Your task to perform on an android device: turn on the 12-hour format for clock Image 0: 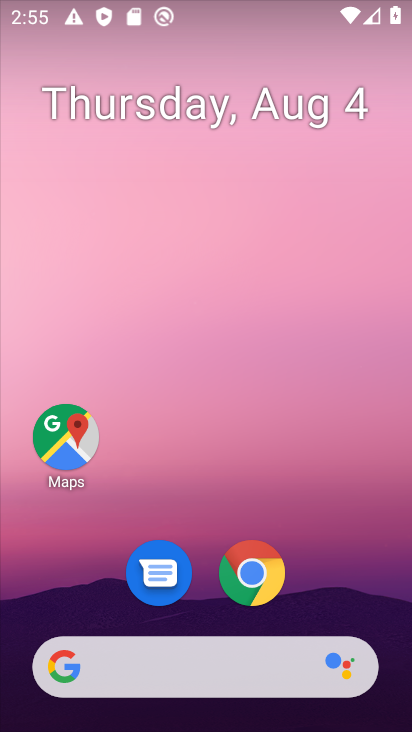
Step 0: drag from (200, 589) to (231, 135)
Your task to perform on an android device: turn on the 12-hour format for clock Image 1: 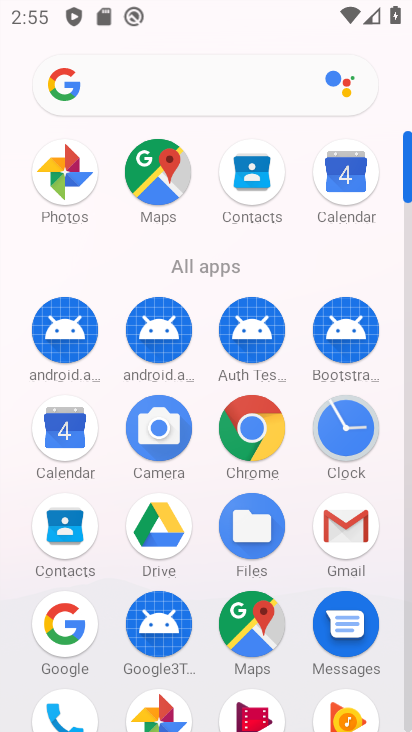
Step 1: click (360, 408)
Your task to perform on an android device: turn on the 12-hour format for clock Image 2: 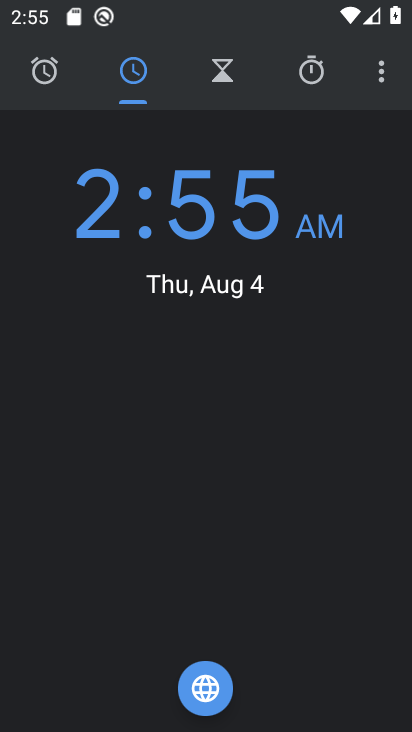
Step 2: click (377, 74)
Your task to perform on an android device: turn on the 12-hour format for clock Image 3: 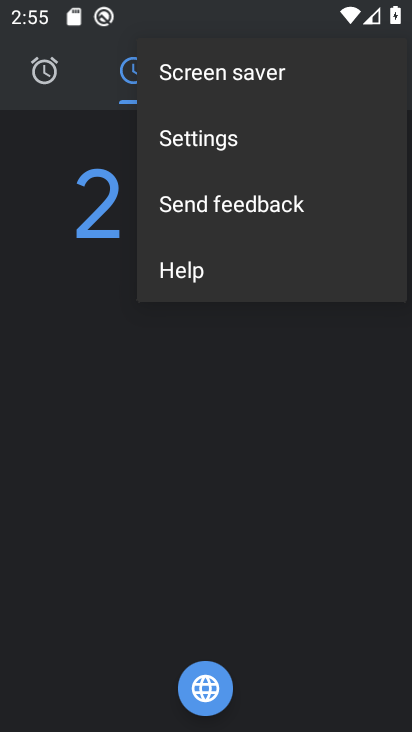
Step 3: click (217, 135)
Your task to perform on an android device: turn on the 12-hour format for clock Image 4: 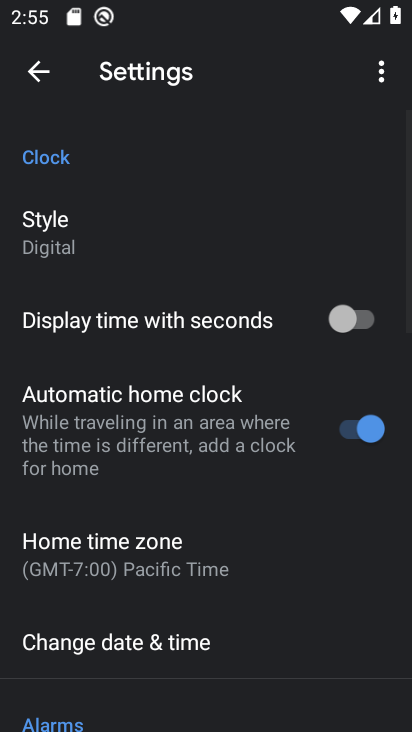
Step 4: drag from (90, 594) to (168, 318)
Your task to perform on an android device: turn on the 12-hour format for clock Image 5: 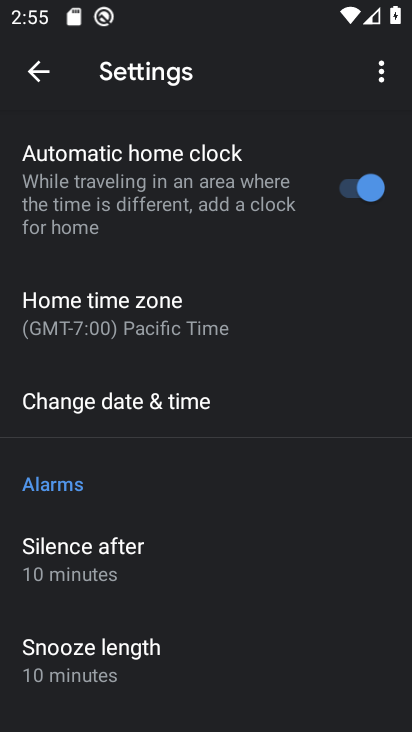
Step 5: click (162, 410)
Your task to perform on an android device: turn on the 12-hour format for clock Image 6: 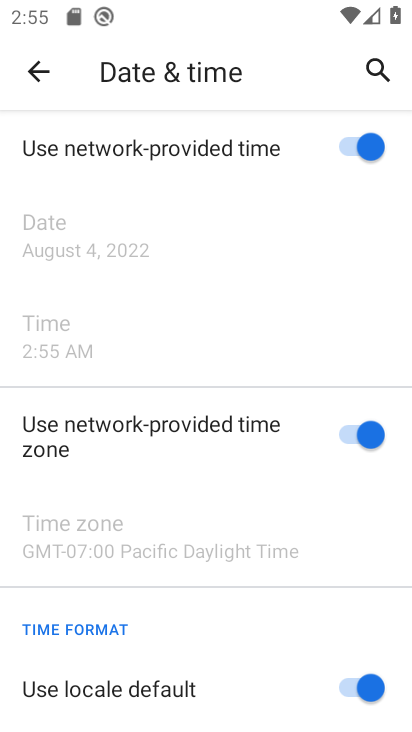
Step 6: drag from (257, 594) to (344, 251)
Your task to perform on an android device: turn on the 12-hour format for clock Image 7: 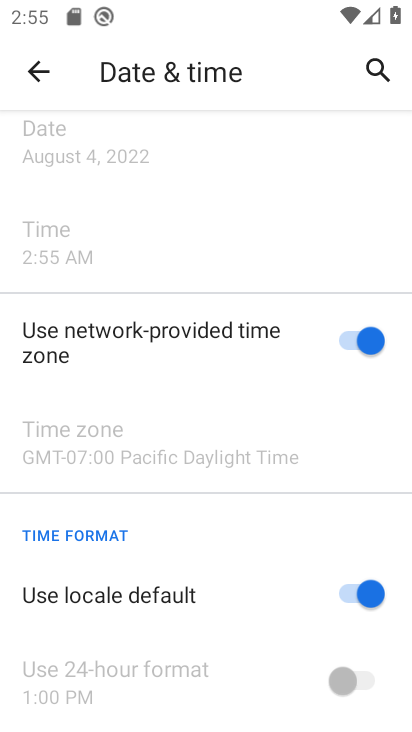
Step 7: click (367, 587)
Your task to perform on an android device: turn on the 12-hour format for clock Image 8: 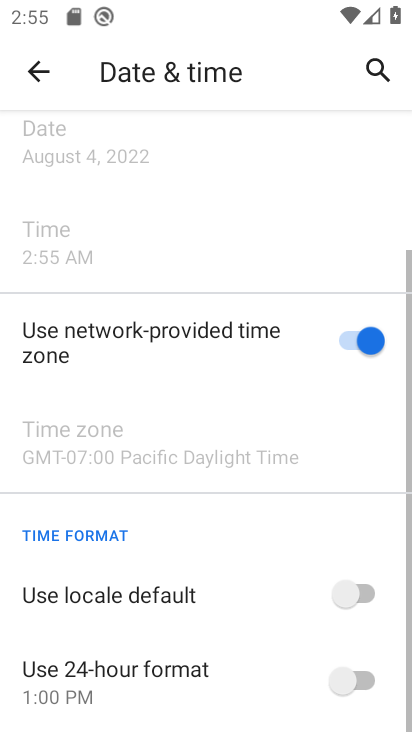
Step 8: click (366, 672)
Your task to perform on an android device: turn on the 12-hour format for clock Image 9: 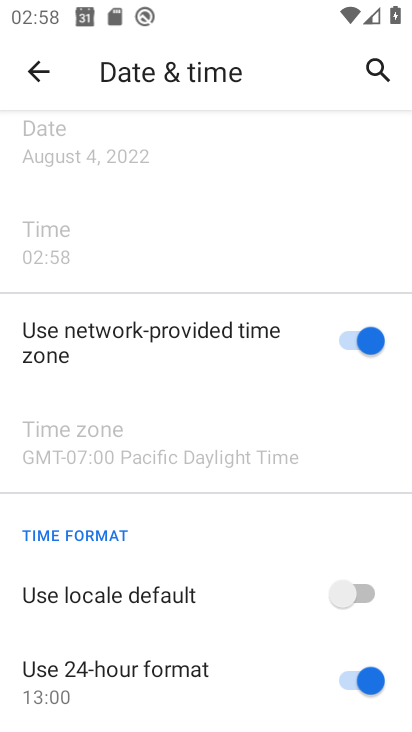
Step 9: task complete